Your task to perform on an android device: Check the news Image 0: 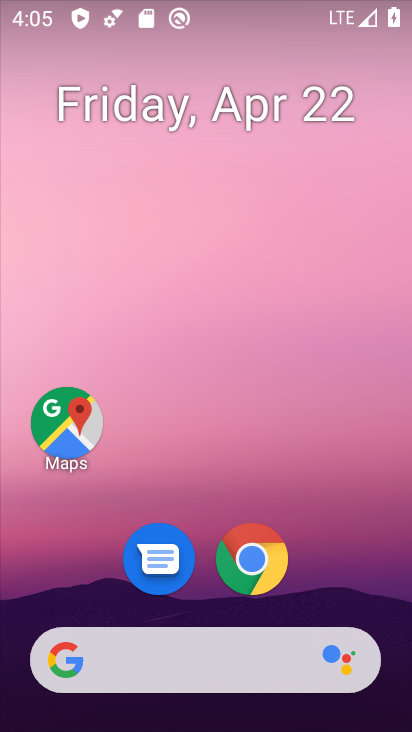
Step 0: drag from (308, 485) to (290, 98)
Your task to perform on an android device: Check the news Image 1: 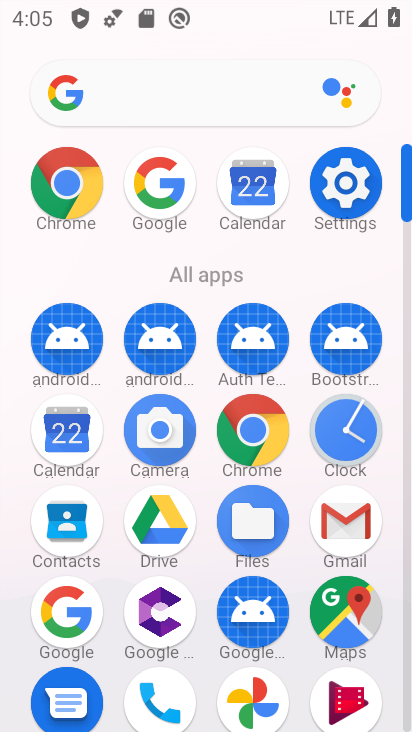
Step 1: click (158, 188)
Your task to perform on an android device: Check the news Image 2: 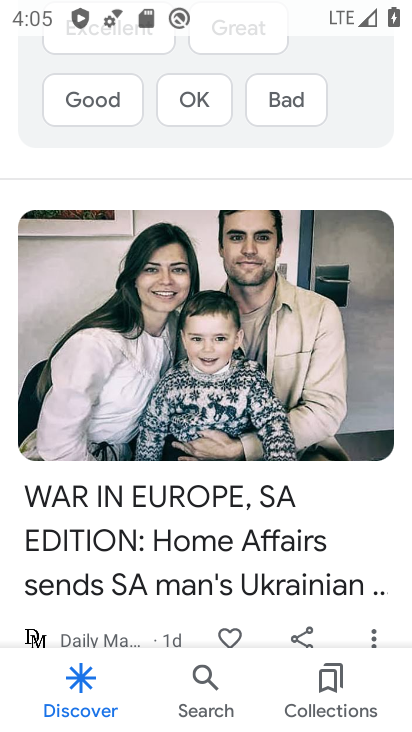
Step 2: task complete